Your task to perform on an android device: turn off location Image 0: 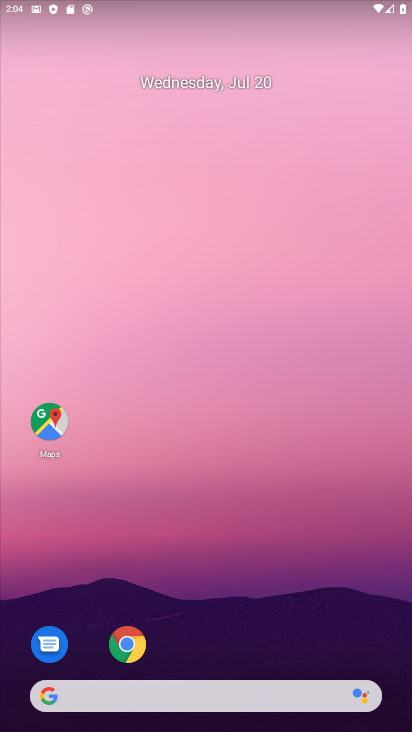
Step 0: drag from (297, 611) to (297, 4)
Your task to perform on an android device: turn off location Image 1: 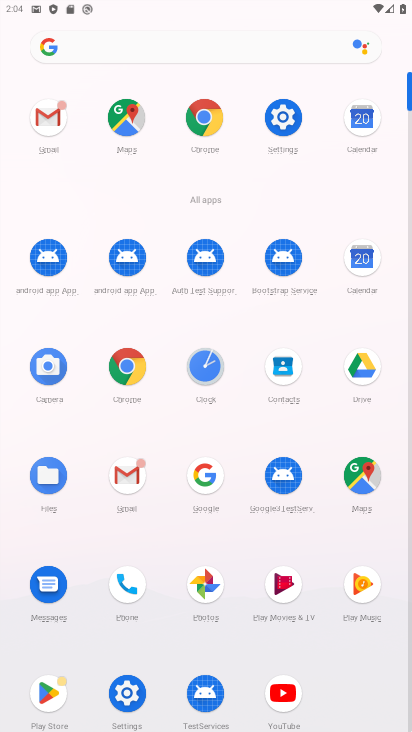
Step 1: click (137, 678)
Your task to perform on an android device: turn off location Image 2: 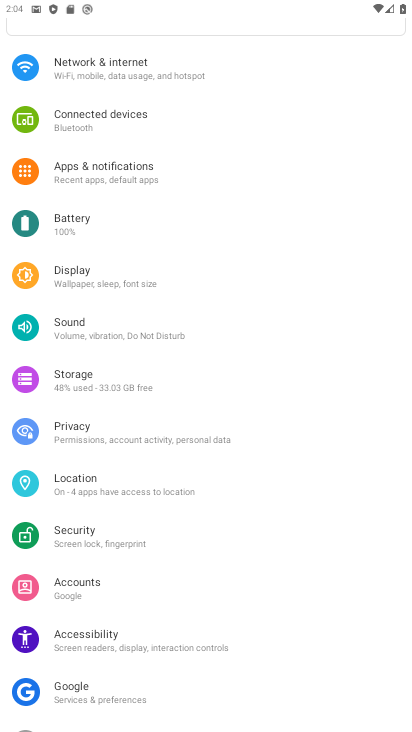
Step 2: click (71, 481)
Your task to perform on an android device: turn off location Image 3: 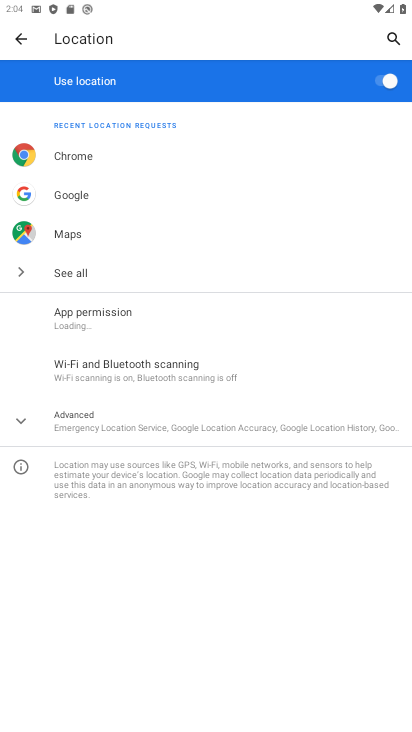
Step 3: click (361, 73)
Your task to perform on an android device: turn off location Image 4: 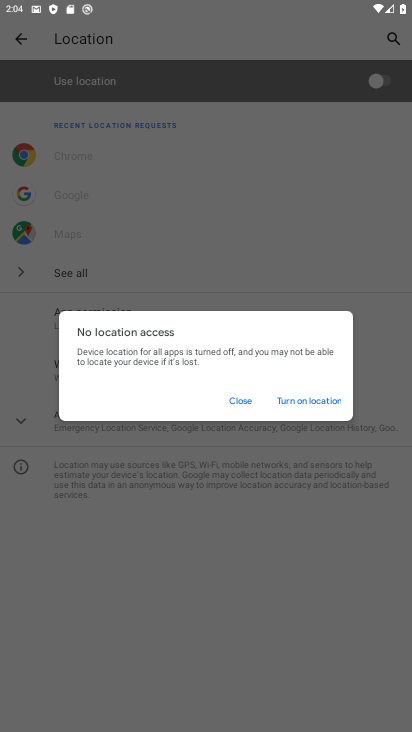
Step 4: click (244, 395)
Your task to perform on an android device: turn off location Image 5: 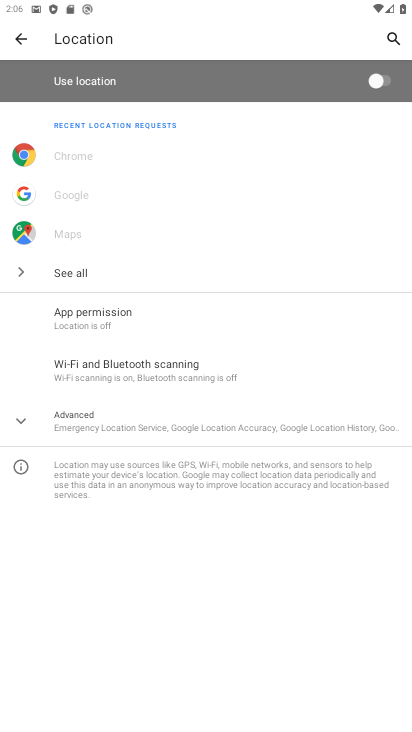
Step 5: task complete